Your task to perform on an android device: Open Yahoo.com Image 0: 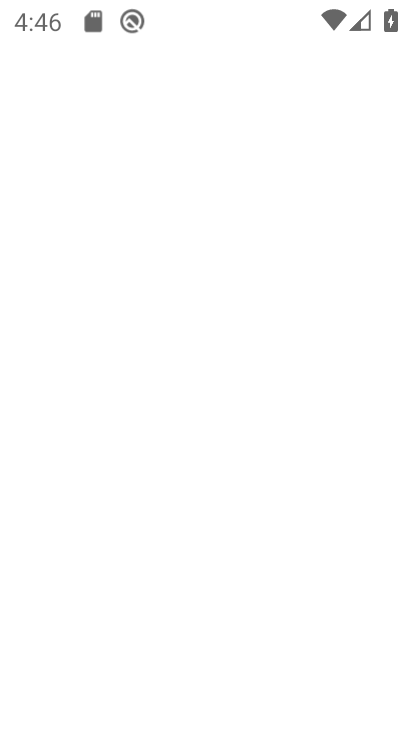
Step 0: click (253, 526)
Your task to perform on an android device: Open Yahoo.com Image 1: 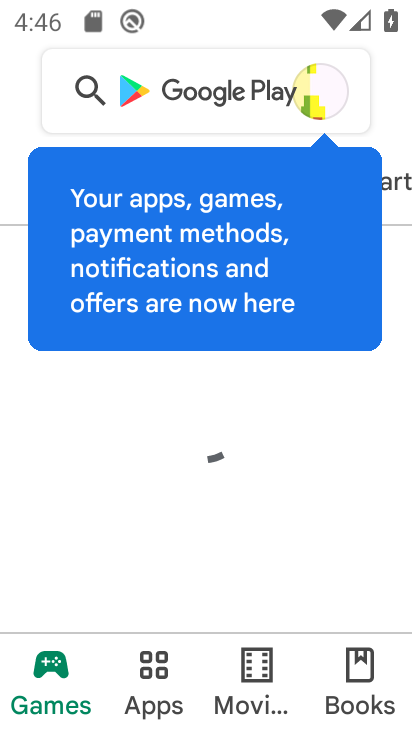
Step 1: press home button
Your task to perform on an android device: Open Yahoo.com Image 2: 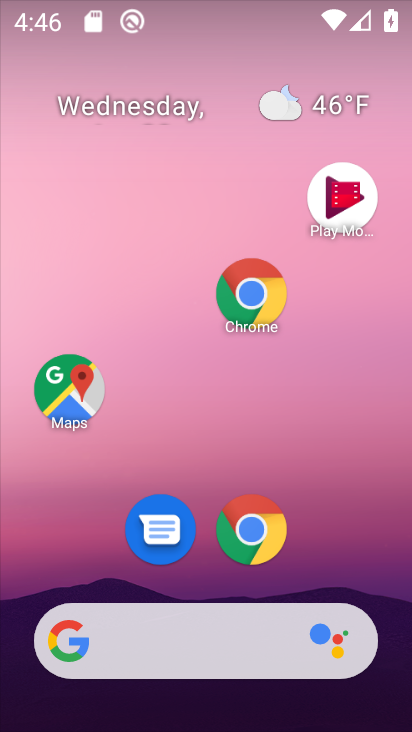
Step 2: click (257, 538)
Your task to perform on an android device: Open Yahoo.com Image 3: 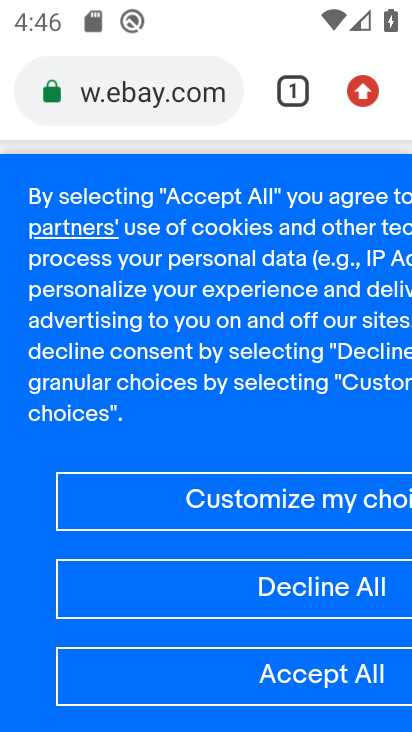
Step 3: click (189, 88)
Your task to perform on an android device: Open Yahoo.com Image 4: 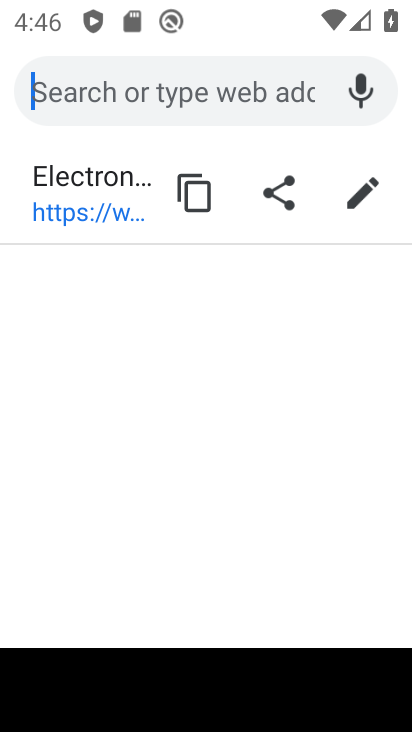
Step 4: type "yahoo.com"
Your task to perform on an android device: Open Yahoo.com Image 5: 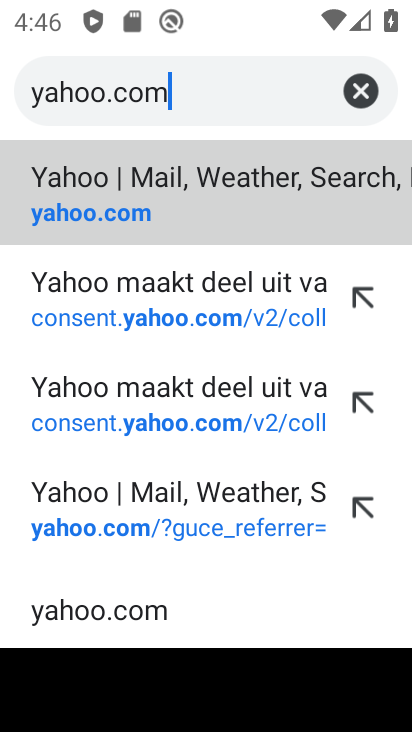
Step 5: click (83, 204)
Your task to perform on an android device: Open Yahoo.com Image 6: 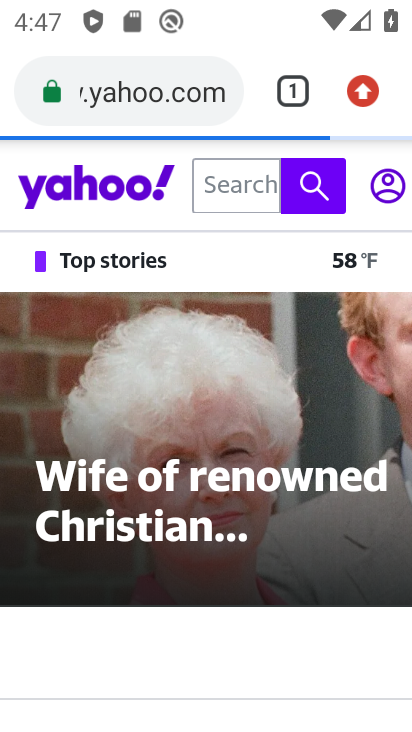
Step 6: task complete